Your task to perform on an android device: Go to Yahoo.com Image 0: 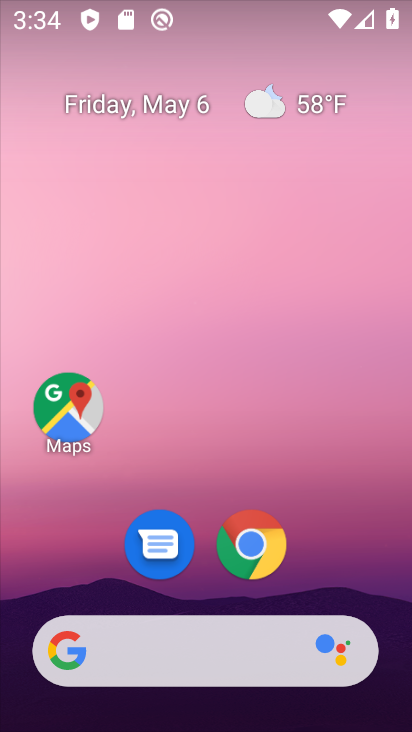
Step 0: click (259, 542)
Your task to perform on an android device: Go to Yahoo.com Image 1: 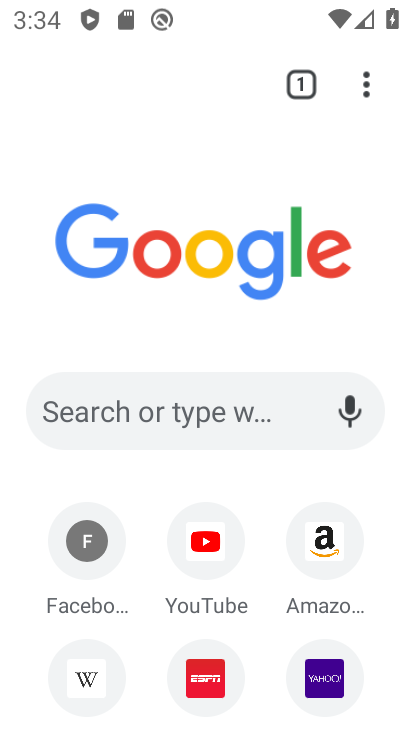
Step 1: click (318, 677)
Your task to perform on an android device: Go to Yahoo.com Image 2: 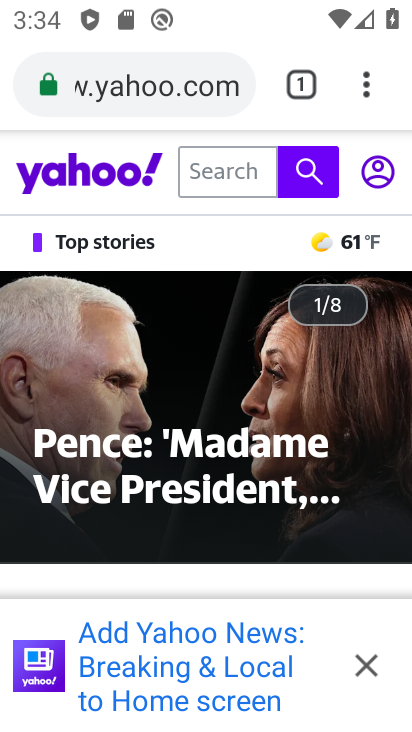
Step 2: task complete